Your task to perform on an android device: clear all cookies in the chrome app Image 0: 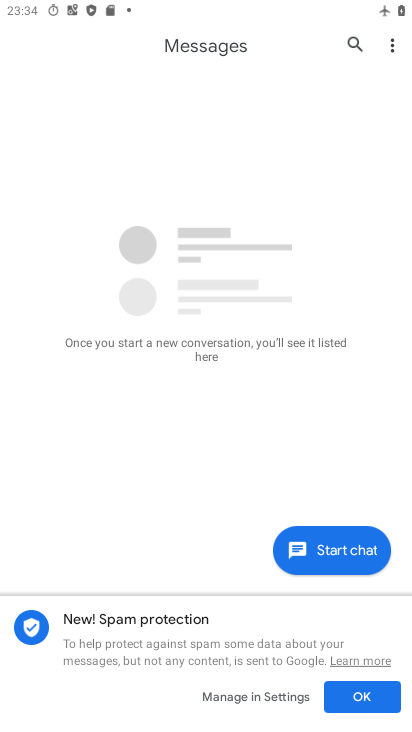
Step 0: press home button
Your task to perform on an android device: clear all cookies in the chrome app Image 1: 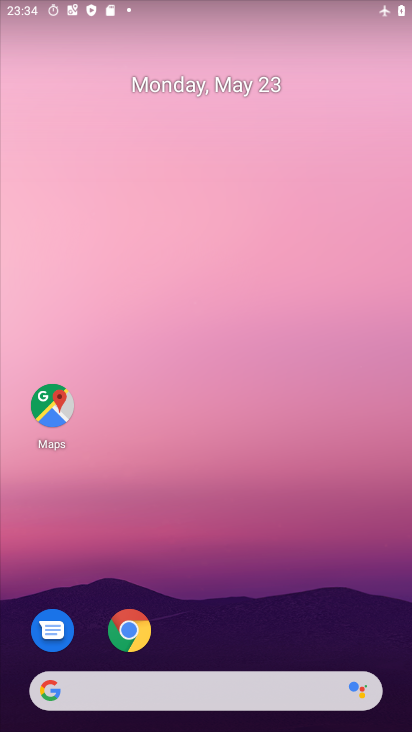
Step 1: click (133, 636)
Your task to perform on an android device: clear all cookies in the chrome app Image 2: 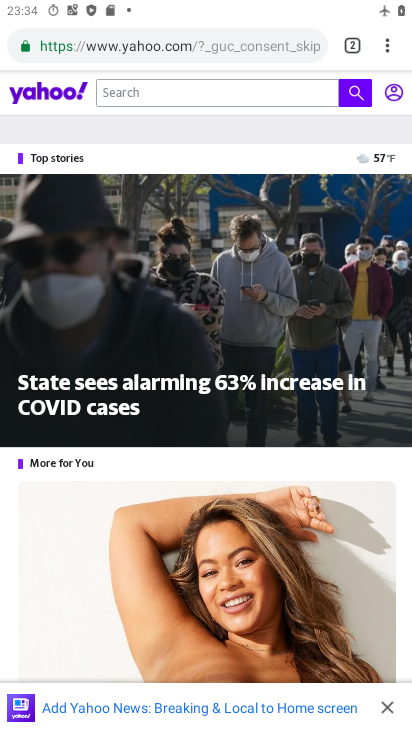
Step 2: click (389, 46)
Your task to perform on an android device: clear all cookies in the chrome app Image 3: 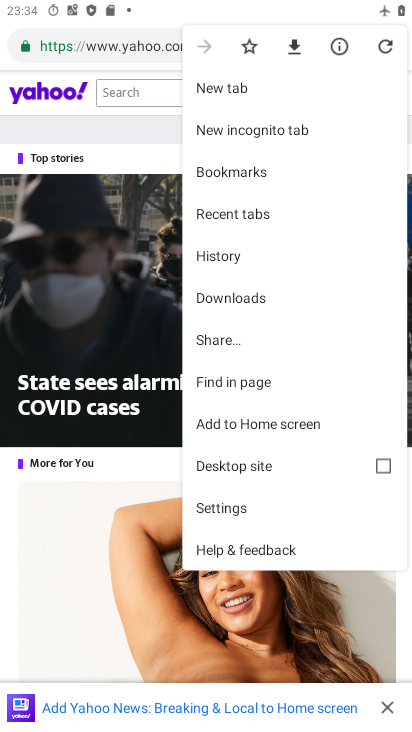
Step 3: click (239, 511)
Your task to perform on an android device: clear all cookies in the chrome app Image 4: 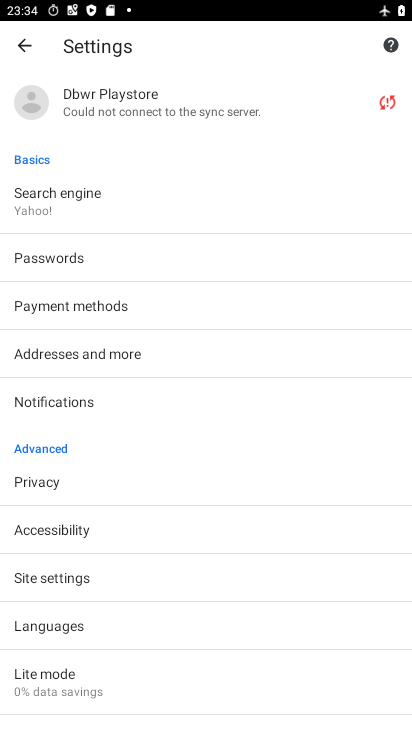
Step 4: click (47, 486)
Your task to perform on an android device: clear all cookies in the chrome app Image 5: 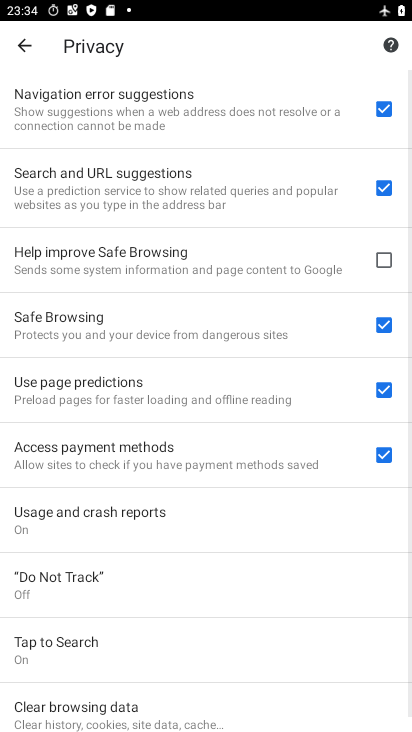
Step 5: drag from (242, 622) to (267, 164)
Your task to perform on an android device: clear all cookies in the chrome app Image 6: 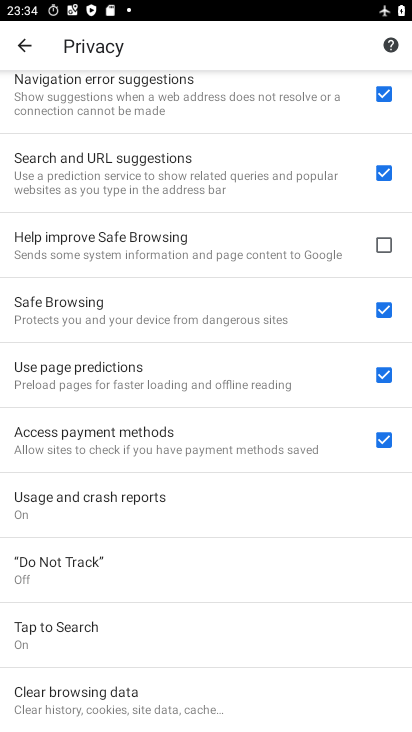
Step 6: click (76, 700)
Your task to perform on an android device: clear all cookies in the chrome app Image 7: 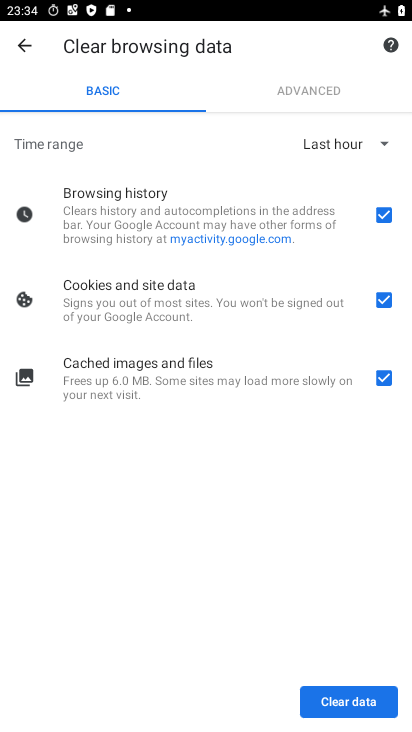
Step 7: click (393, 381)
Your task to perform on an android device: clear all cookies in the chrome app Image 8: 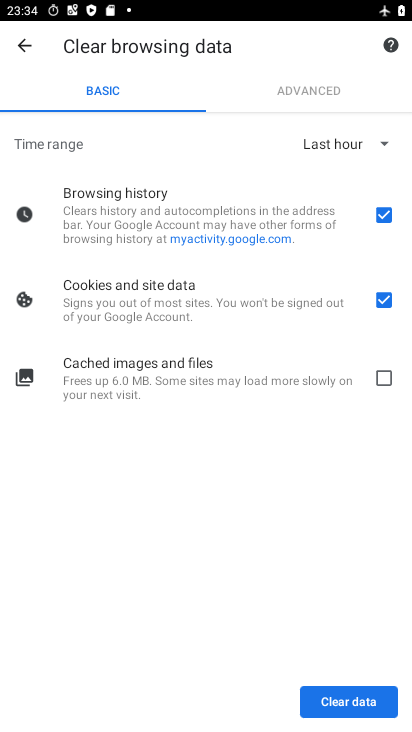
Step 8: click (393, 213)
Your task to perform on an android device: clear all cookies in the chrome app Image 9: 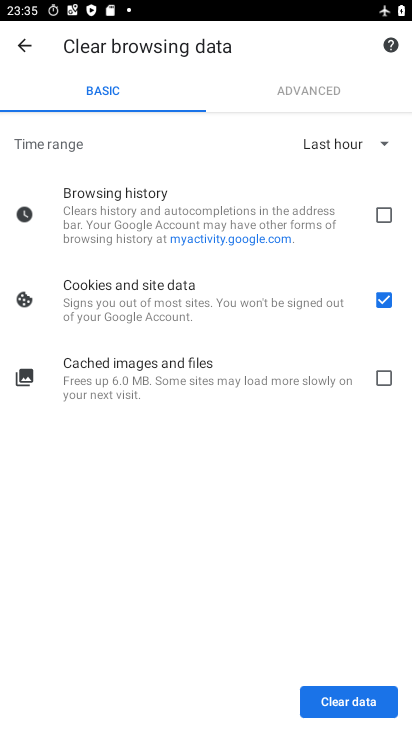
Step 9: click (336, 702)
Your task to perform on an android device: clear all cookies in the chrome app Image 10: 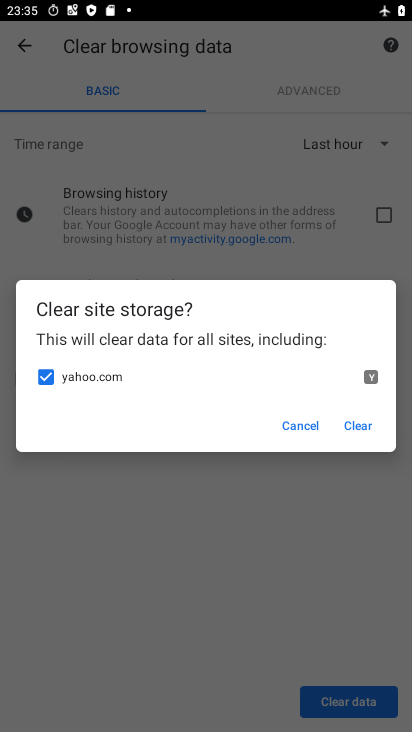
Step 10: click (366, 423)
Your task to perform on an android device: clear all cookies in the chrome app Image 11: 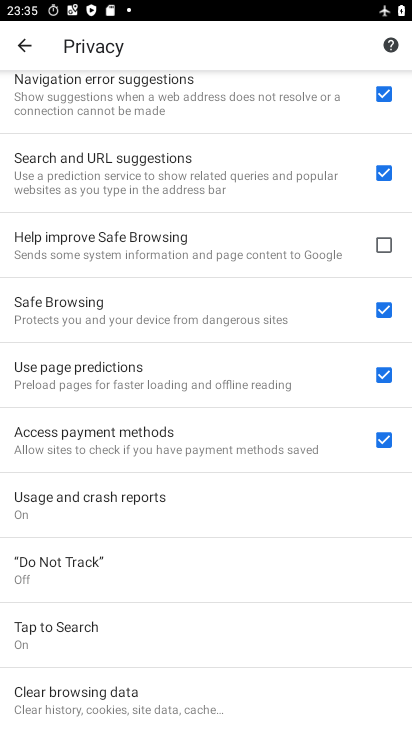
Step 11: task complete